Your task to perform on an android device: Open Youtube and go to the subscriptions tab Image 0: 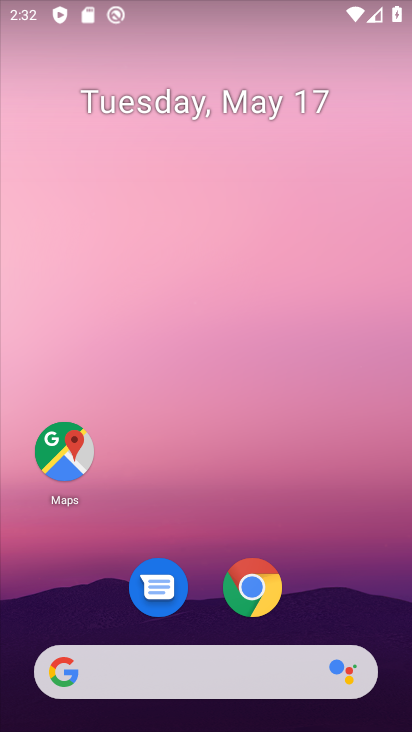
Step 0: drag from (273, 677) to (279, 88)
Your task to perform on an android device: Open Youtube and go to the subscriptions tab Image 1: 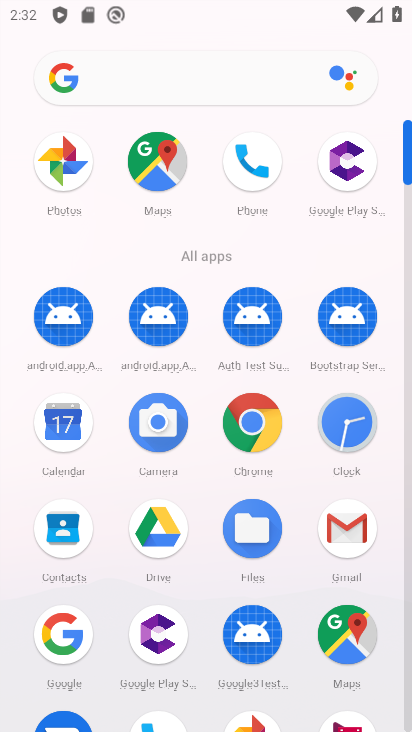
Step 1: drag from (286, 656) to (299, 171)
Your task to perform on an android device: Open Youtube and go to the subscriptions tab Image 2: 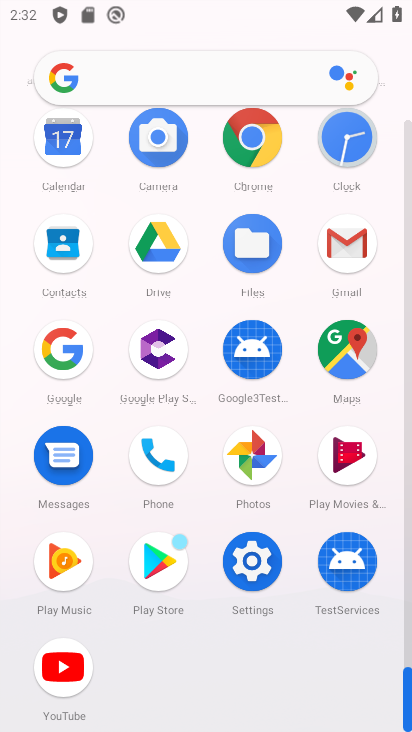
Step 2: click (71, 669)
Your task to perform on an android device: Open Youtube and go to the subscriptions tab Image 3: 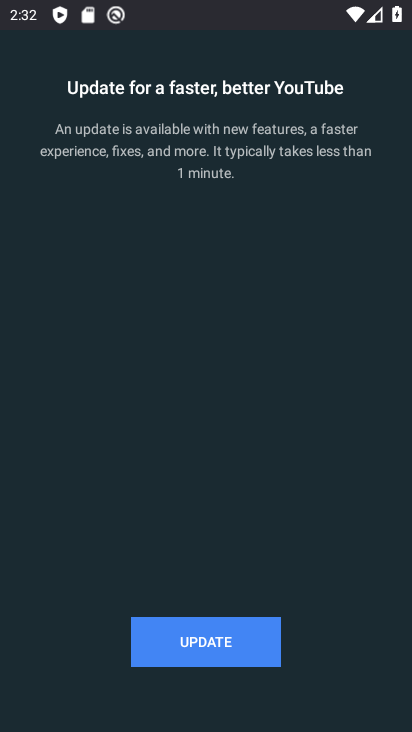
Step 3: click (211, 650)
Your task to perform on an android device: Open Youtube and go to the subscriptions tab Image 4: 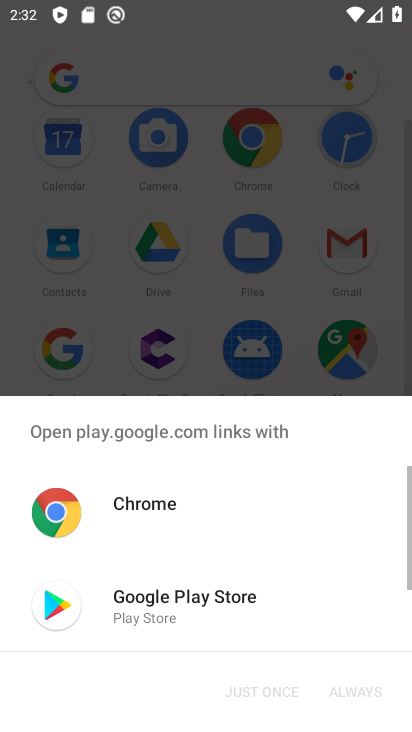
Step 4: click (104, 587)
Your task to perform on an android device: Open Youtube and go to the subscriptions tab Image 5: 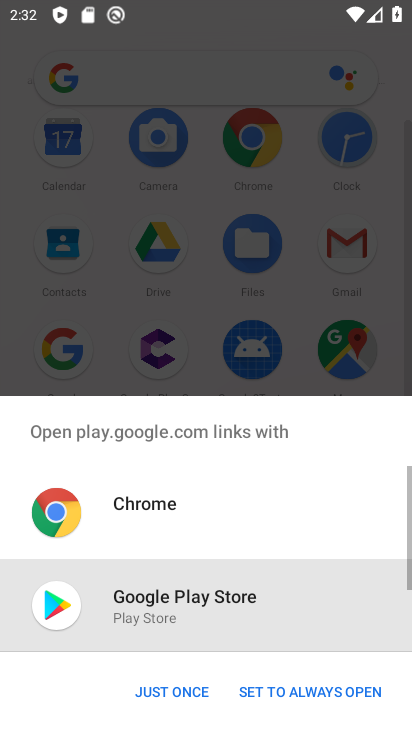
Step 5: click (178, 688)
Your task to perform on an android device: Open Youtube and go to the subscriptions tab Image 6: 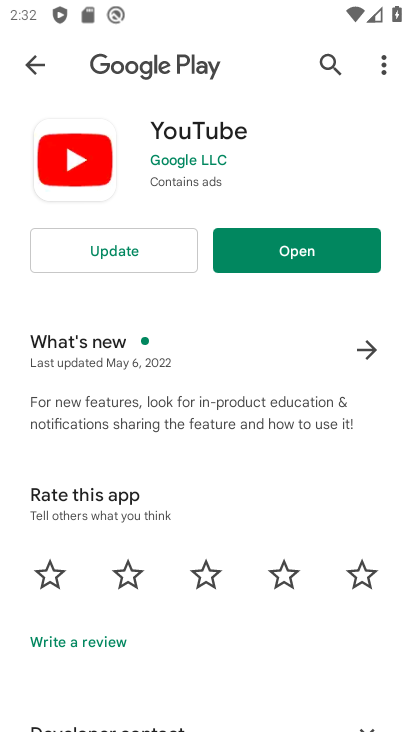
Step 6: click (163, 247)
Your task to perform on an android device: Open Youtube and go to the subscriptions tab Image 7: 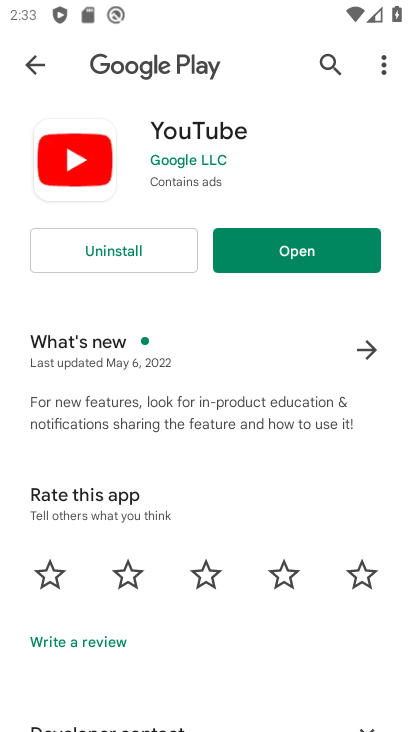
Step 7: click (273, 241)
Your task to perform on an android device: Open Youtube and go to the subscriptions tab Image 8: 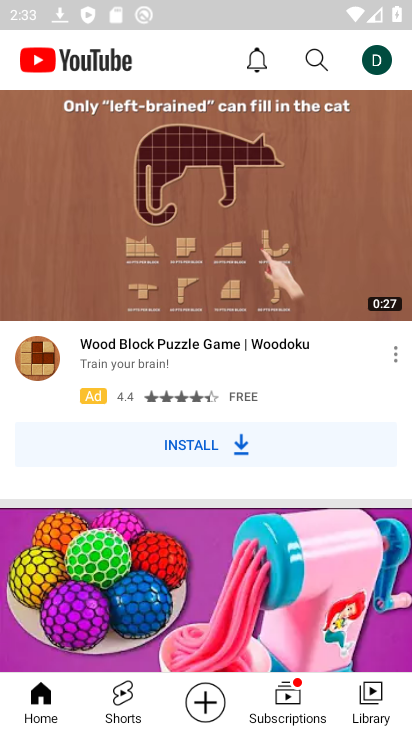
Step 8: click (308, 700)
Your task to perform on an android device: Open Youtube and go to the subscriptions tab Image 9: 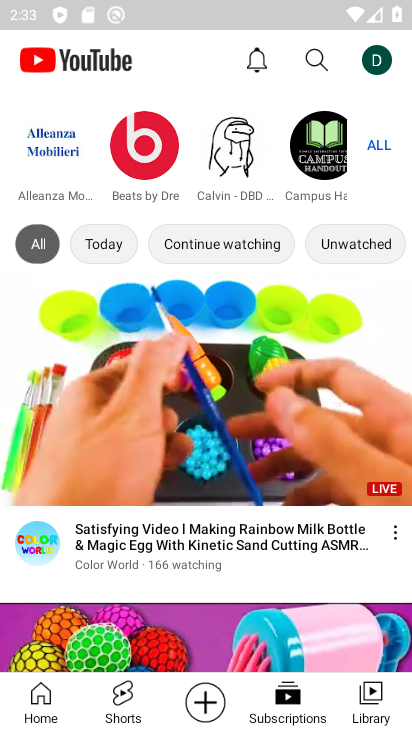
Step 9: task complete